Your task to perform on an android device: visit the assistant section in the google photos Image 0: 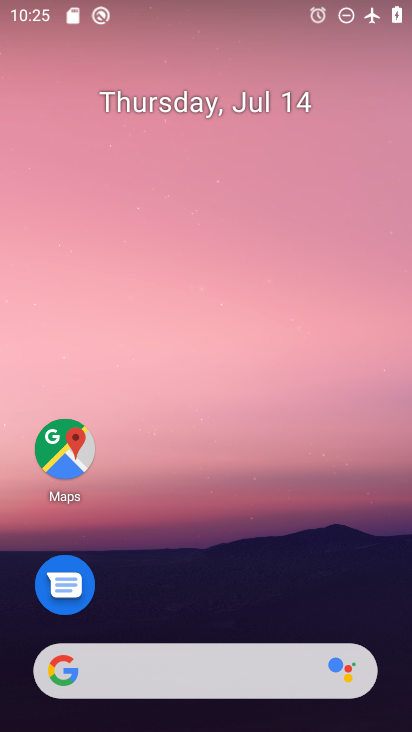
Step 0: drag from (193, 613) to (194, 1)
Your task to perform on an android device: visit the assistant section in the google photos Image 1: 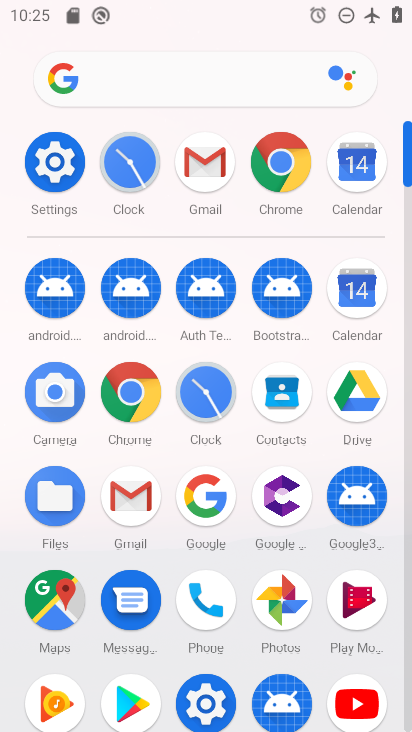
Step 1: click (278, 616)
Your task to perform on an android device: visit the assistant section in the google photos Image 2: 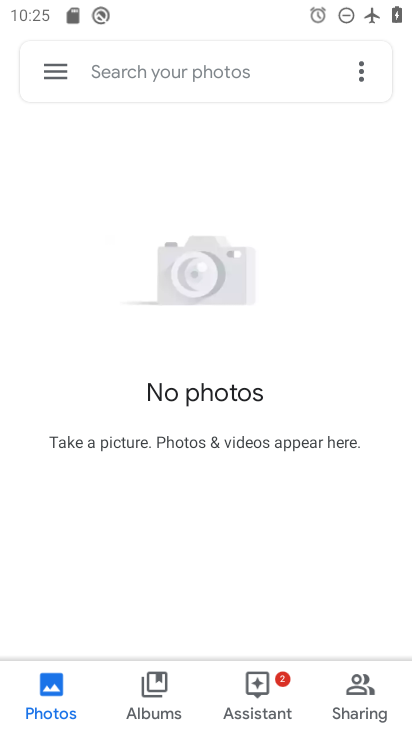
Step 2: click (245, 693)
Your task to perform on an android device: visit the assistant section in the google photos Image 3: 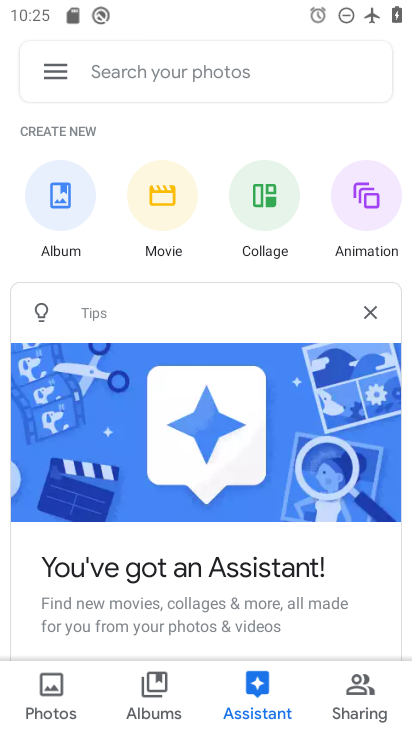
Step 3: task complete